Your task to perform on an android device: open a bookmark in the chrome app Image 0: 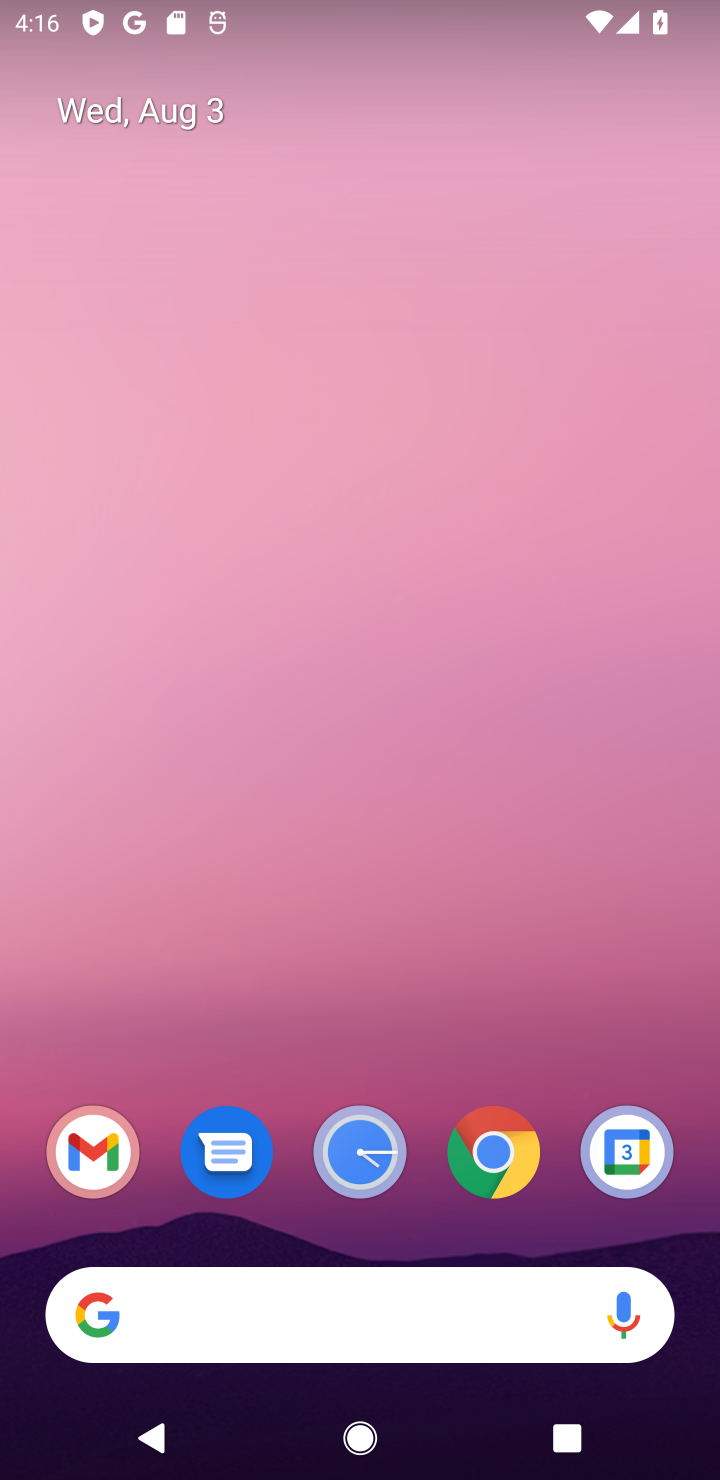
Step 0: click (524, 1165)
Your task to perform on an android device: open a bookmark in the chrome app Image 1: 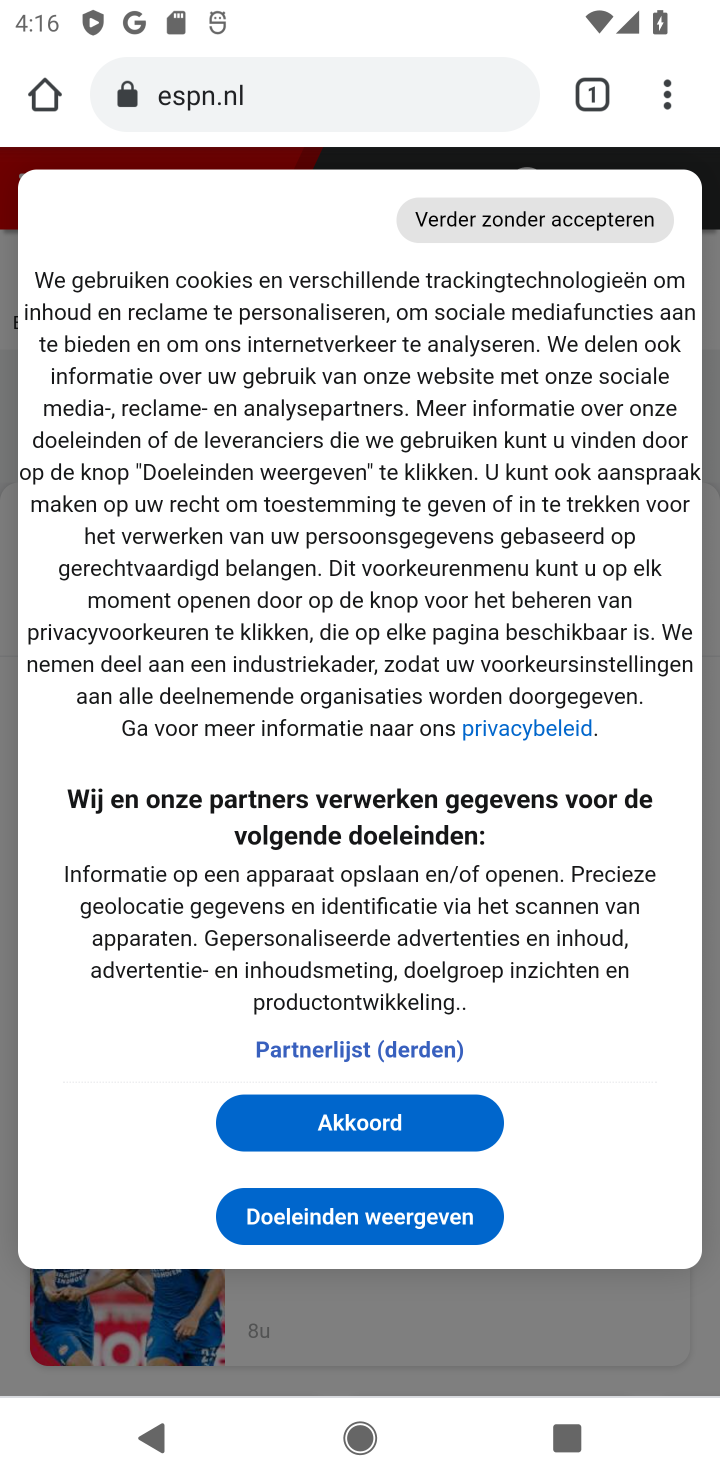
Step 1: task complete